Your task to perform on an android device: Go to sound settings Image 0: 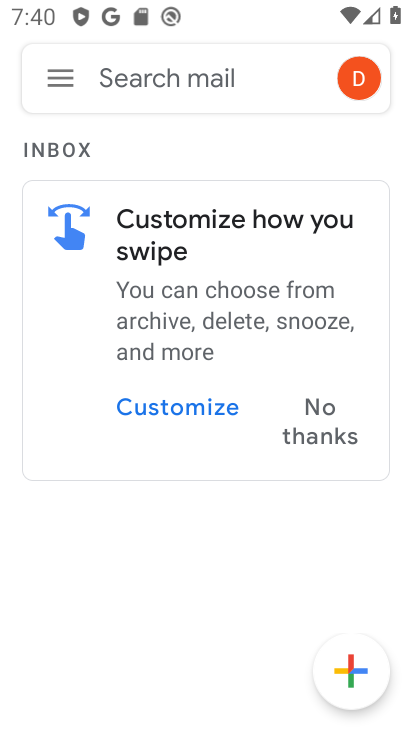
Step 0: press home button
Your task to perform on an android device: Go to sound settings Image 1: 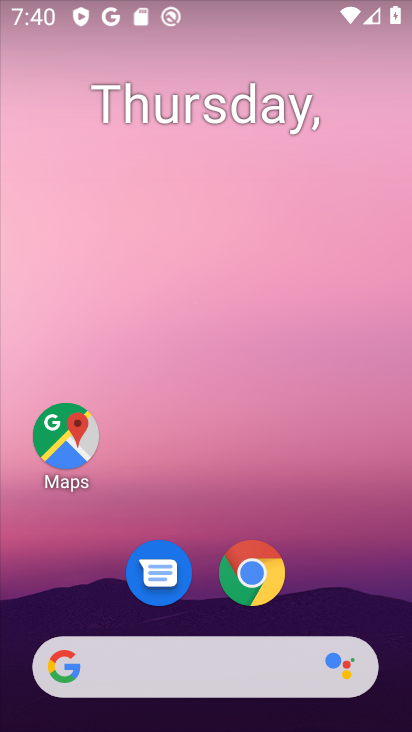
Step 1: drag from (319, 570) to (319, 177)
Your task to perform on an android device: Go to sound settings Image 2: 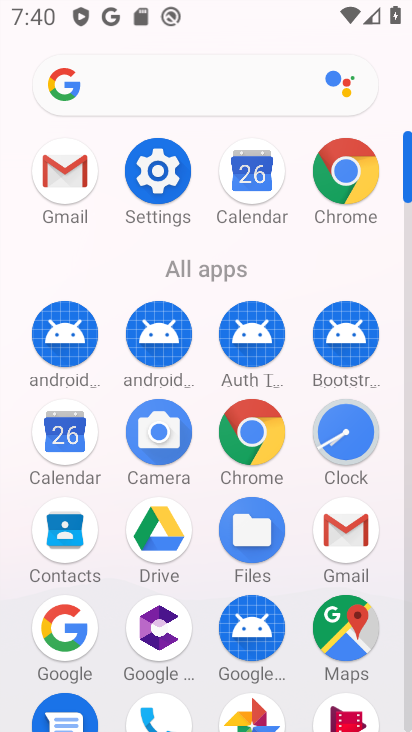
Step 2: click (159, 192)
Your task to perform on an android device: Go to sound settings Image 3: 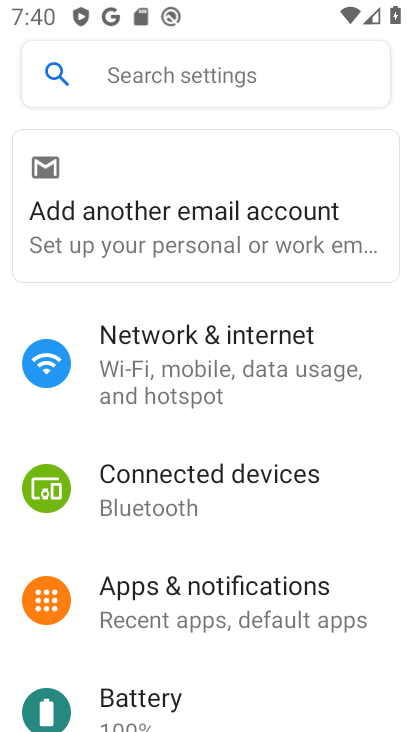
Step 3: drag from (195, 641) to (167, 309)
Your task to perform on an android device: Go to sound settings Image 4: 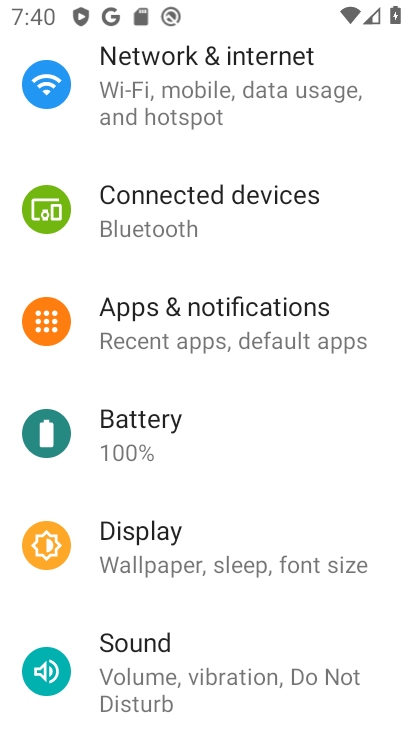
Step 4: click (161, 658)
Your task to perform on an android device: Go to sound settings Image 5: 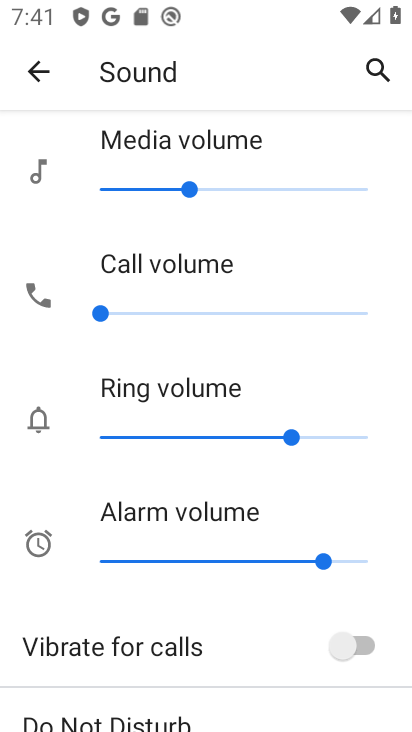
Step 5: task complete